Your task to perform on an android device: Find coffee shops on Maps Image 0: 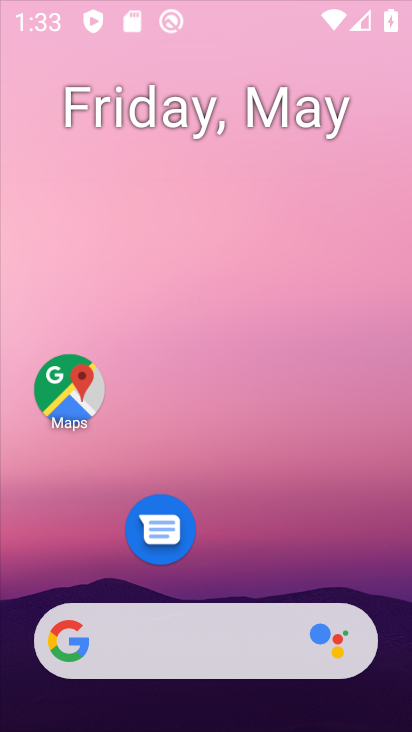
Step 0: drag from (200, 458) to (265, 66)
Your task to perform on an android device: Find coffee shops on Maps Image 1: 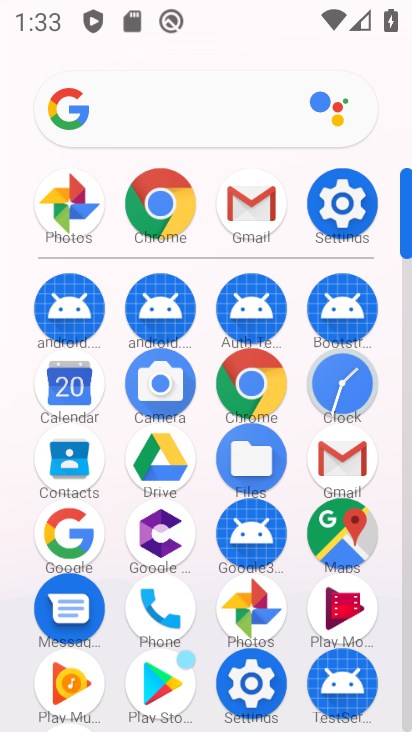
Step 1: click (341, 554)
Your task to perform on an android device: Find coffee shops on Maps Image 2: 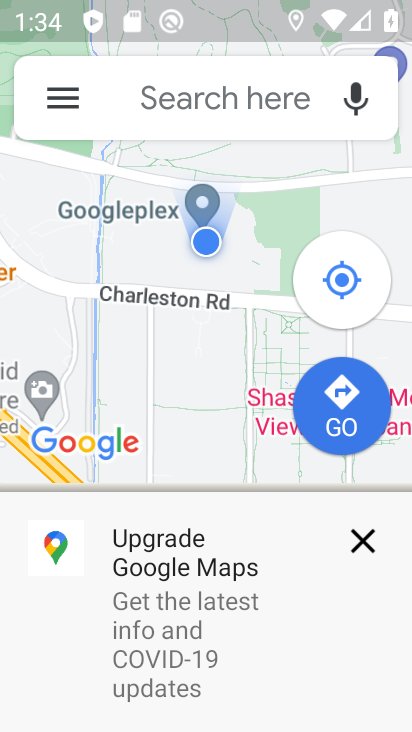
Step 2: click (142, 105)
Your task to perform on an android device: Find coffee shops on Maps Image 3: 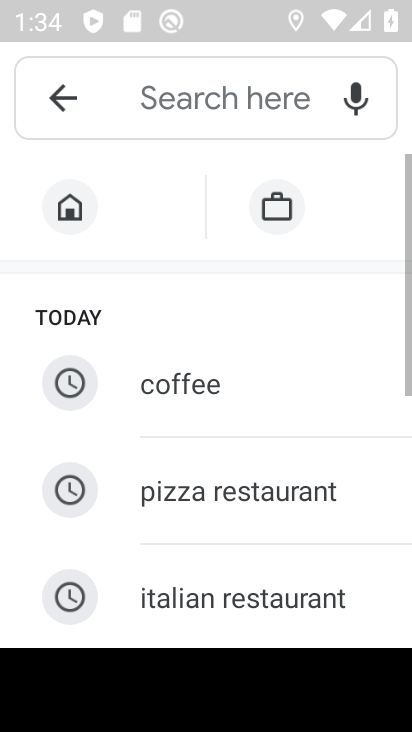
Step 3: click (167, 403)
Your task to perform on an android device: Find coffee shops on Maps Image 4: 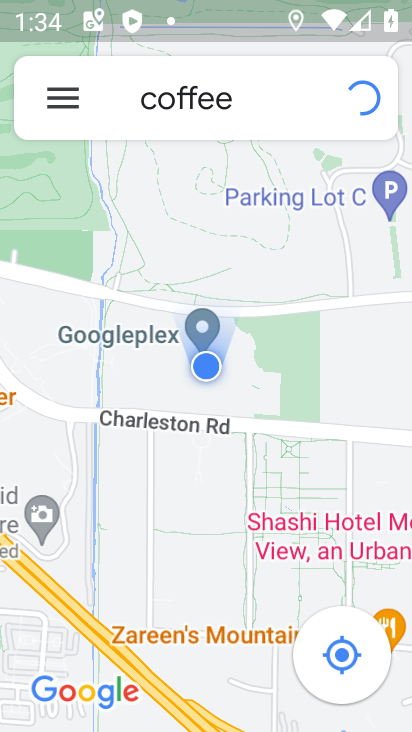
Step 4: task complete